Your task to perform on an android device: turn pop-ups off in chrome Image 0: 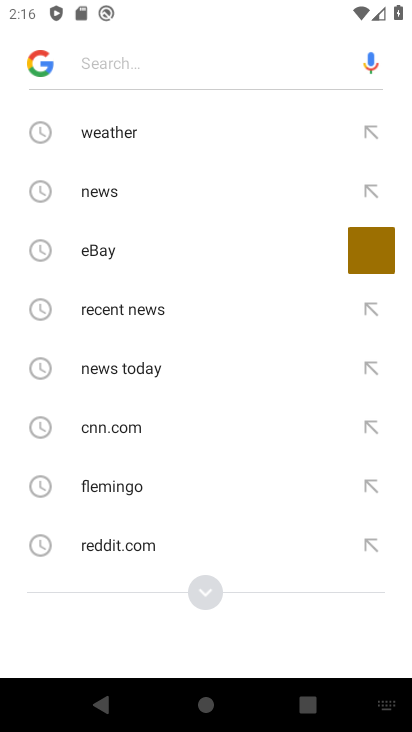
Step 0: press home button
Your task to perform on an android device: turn pop-ups off in chrome Image 1: 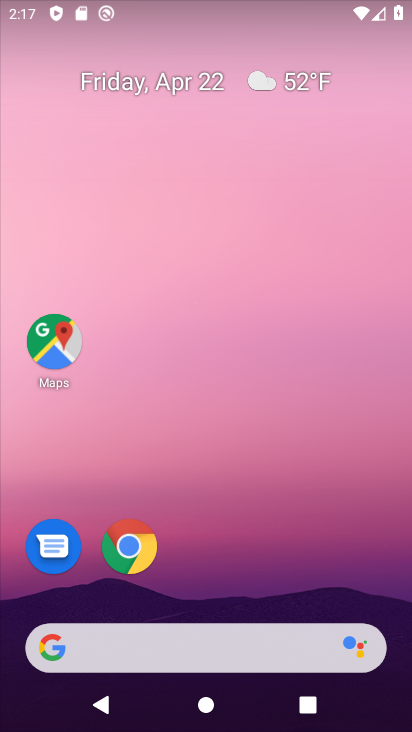
Step 1: drag from (228, 719) to (321, 244)
Your task to perform on an android device: turn pop-ups off in chrome Image 2: 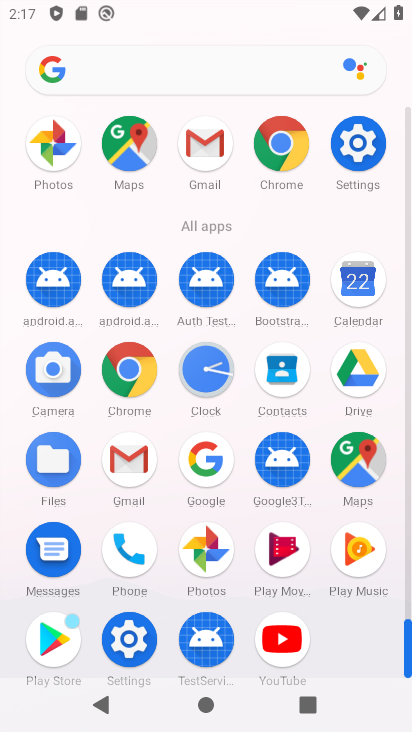
Step 2: click (274, 145)
Your task to perform on an android device: turn pop-ups off in chrome Image 3: 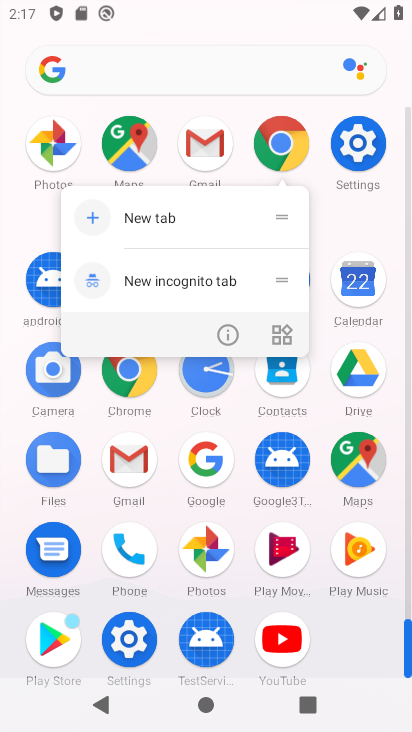
Step 3: click (280, 143)
Your task to perform on an android device: turn pop-ups off in chrome Image 4: 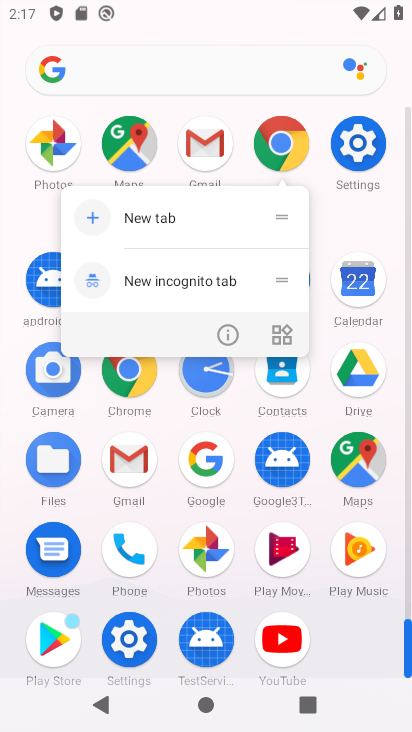
Step 4: click (293, 136)
Your task to perform on an android device: turn pop-ups off in chrome Image 5: 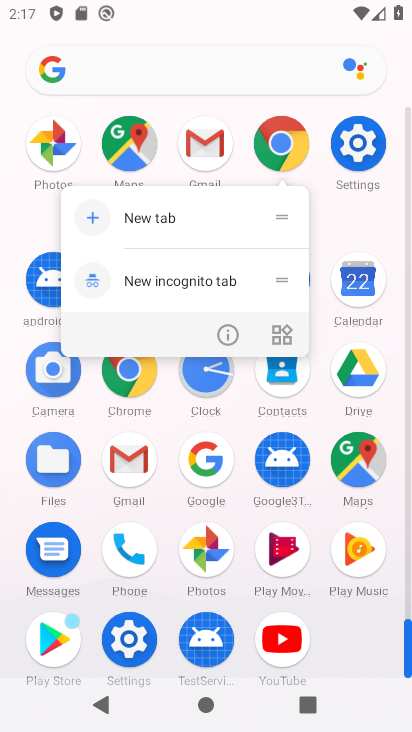
Step 5: click (283, 152)
Your task to perform on an android device: turn pop-ups off in chrome Image 6: 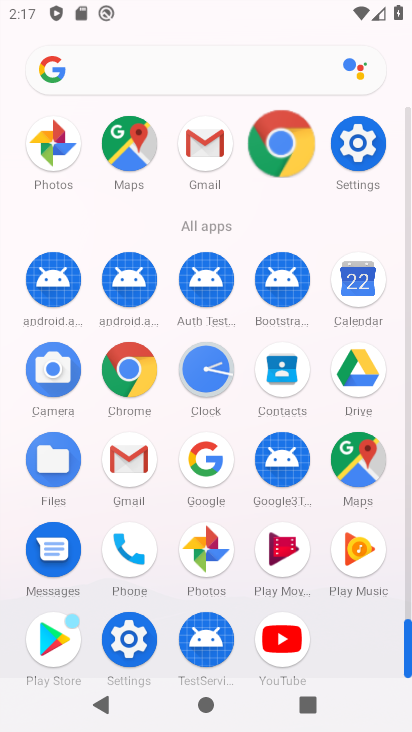
Step 6: click (283, 152)
Your task to perform on an android device: turn pop-ups off in chrome Image 7: 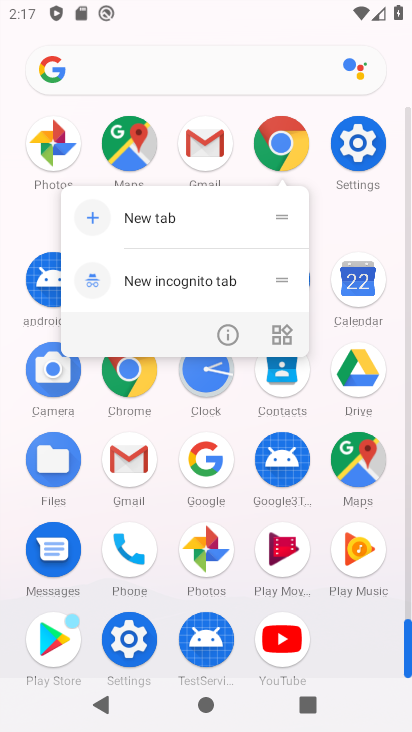
Step 7: click (283, 152)
Your task to perform on an android device: turn pop-ups off in chrome Image 8: 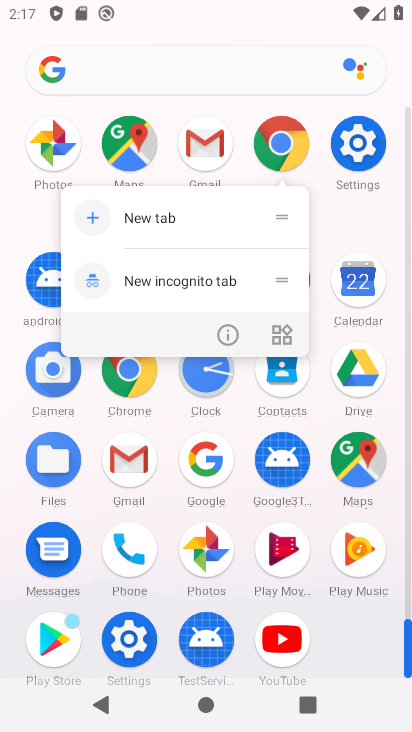
Step 8: click (284, 141)
Your task to perform on an android device: turn pop-ups off in chrome Image 9: 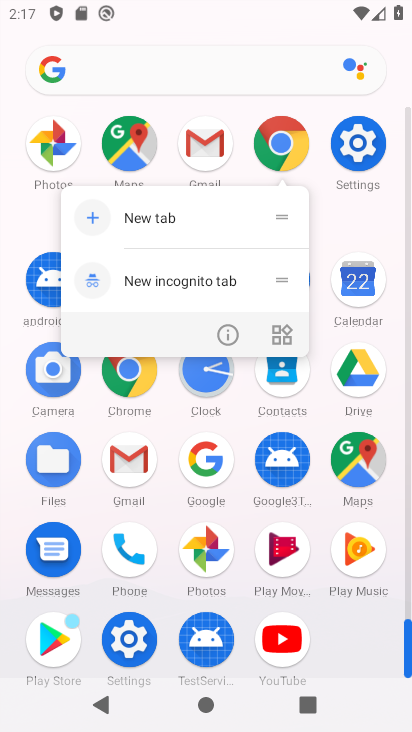
Step 9: click (284, 141)
Your task to perform on an android device: turn pop-ups off in chrome Image 10: 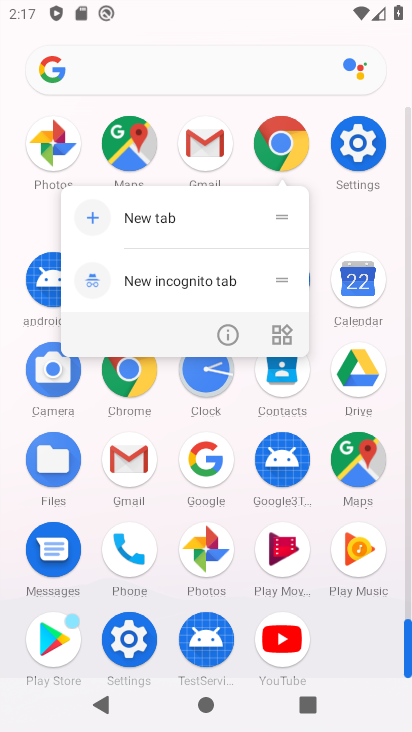
Step 10: click (288, 214)
Your task to perform on an android device: turn pop-ups off in chrome Image 11: 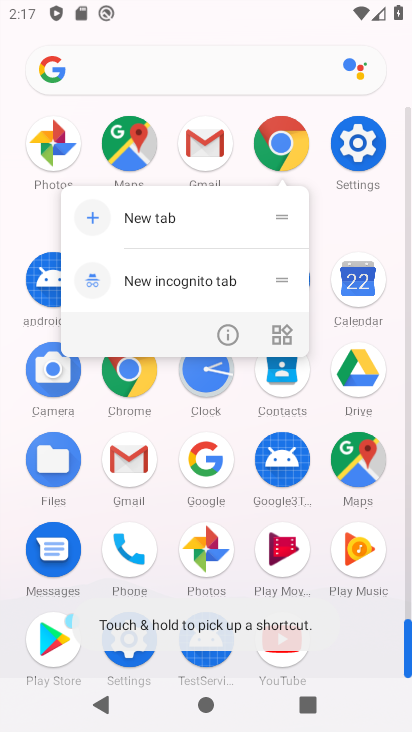
Step 11: click (132, 380)
Your task to perform on an android device: turn pop-ups off in chrome Image 12: 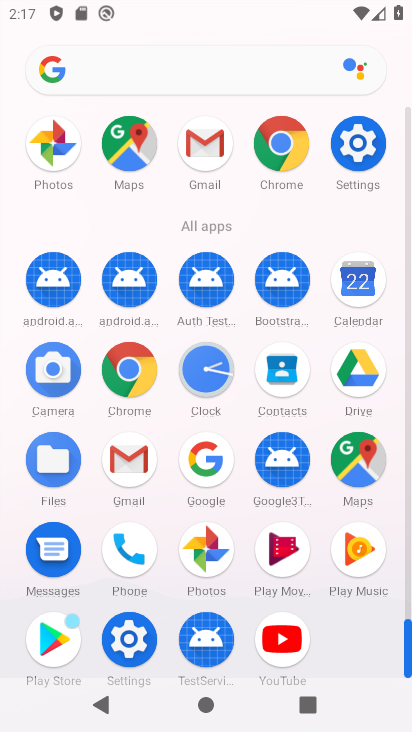
Step 12: click (132, 371)
Your task to perform on an android device: turn pop-ups off in chrome Image 13: 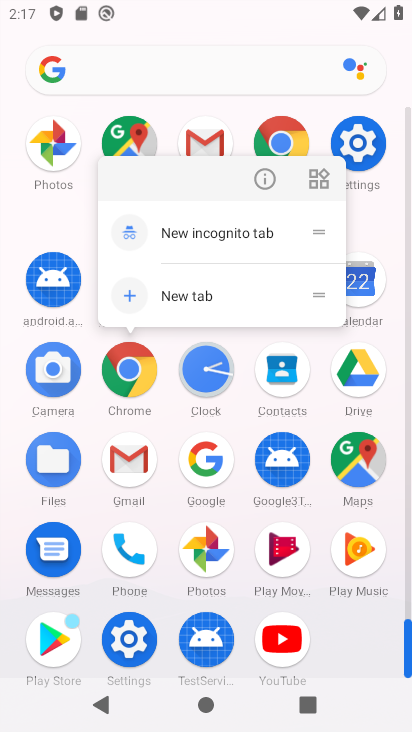
Step 13: click (133, 368)
Your task to perform on an android device: turn pop-ups off in chrome Image 14: 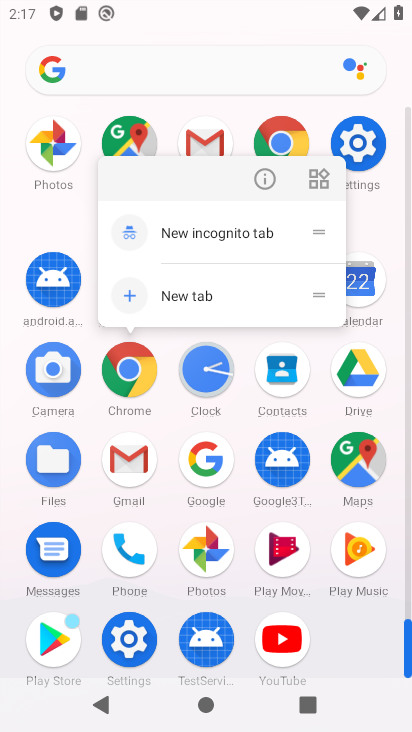
Step 14: click (146, 363)
Your task to perform on an android device: turn pop-ups off in chrome Image 15: 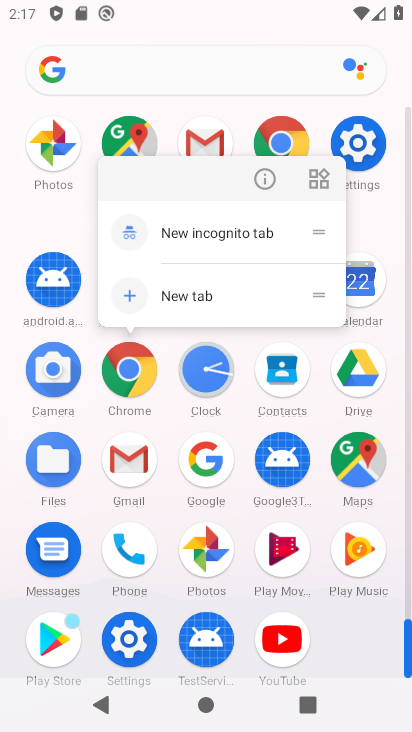
Step 15: click (129, 371)
Your task to perform on an android device: turn pop-ups off in chrome Image 16: 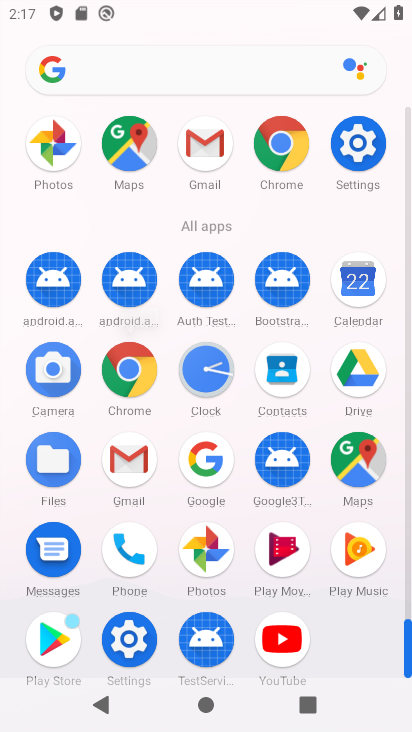
Step 16: click (131, 370)
Your task to perform on an android device: turn pop-ups off in chrome Image 17: 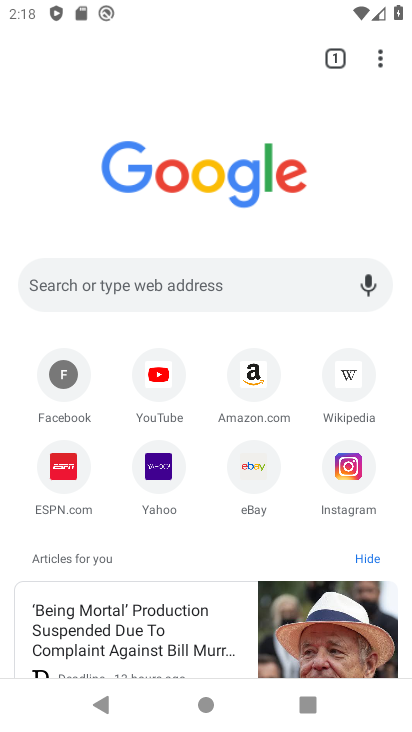
Step 17: drag from (377, 64) to (211, 501)
Your task to perform on an android device: turn pop-ups off in chrome Image 18: 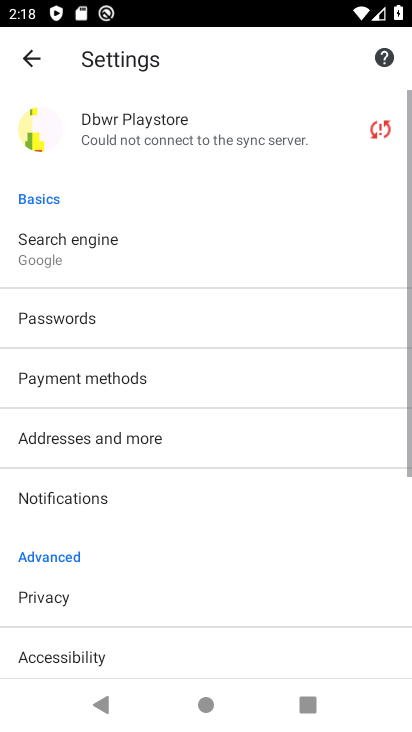
Step 18: click (211, 501)
Your task to perform on an android device: turn pop-ups off in chrome Image 19: 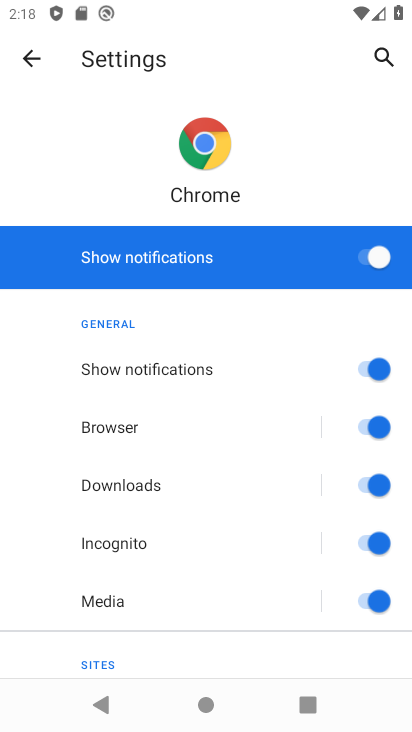
Step 19: click (378, 262)
Your task to perform on an android device: turn pop-ups off in chrome Image 20: 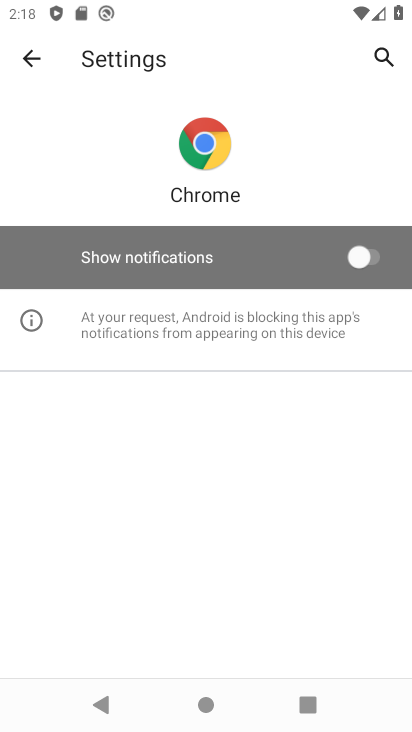
Step 20: click (378, 262)
Your task to perform on an android device: turn pop-ups off in chrome Image 21: 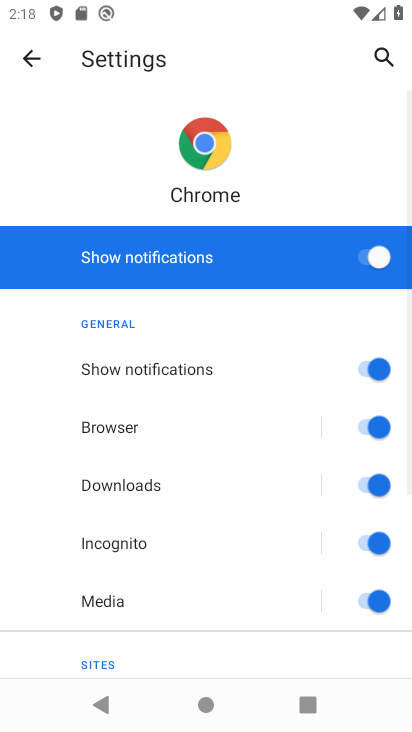
Step 21: task complete